Your task to perform on an android device: Go to privacy settings Image 0: 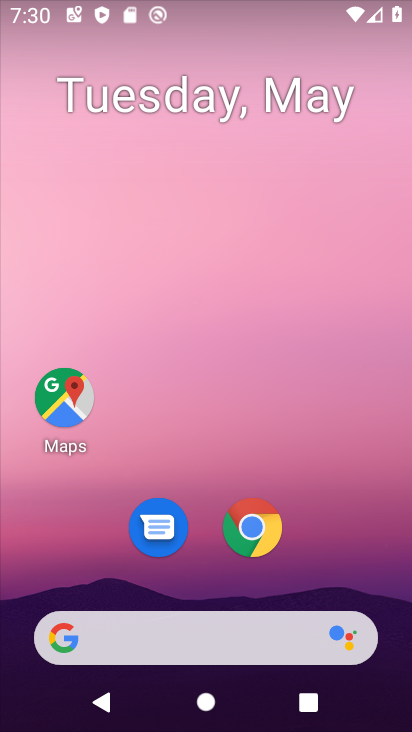
Step 0: drag from (351, 533) to (251, 113)
Your task to perform on an android device: Go to privacy settings Image 1: 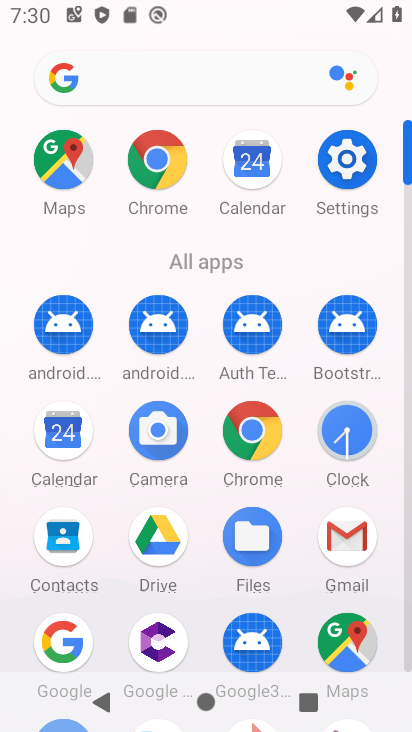
Step 1: click (347, 157)
Your task to perform on an android device: Go to privacy settings Image 2: 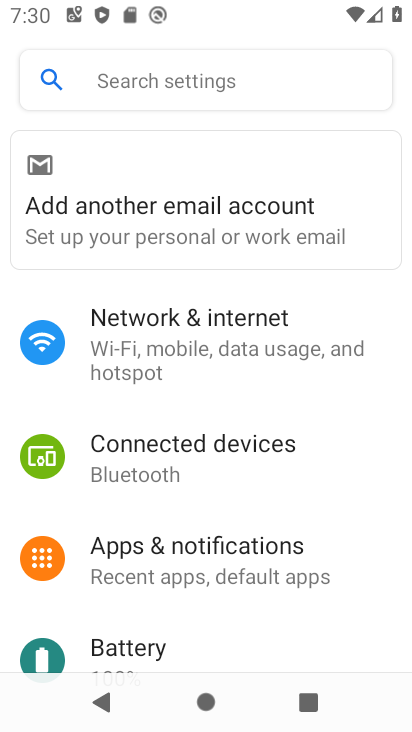
Step 2: drag from (188, 601) to (240, 507)
Your task to perform on an android device: Go to privacy settings Image 3: 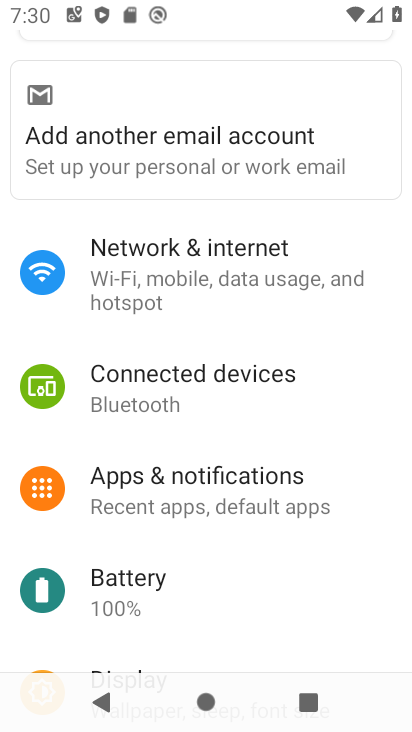
Step 3: drag from (214, 577) to (285, 482)
Your task to perform on an android device: Go to privacy settings Image 4: 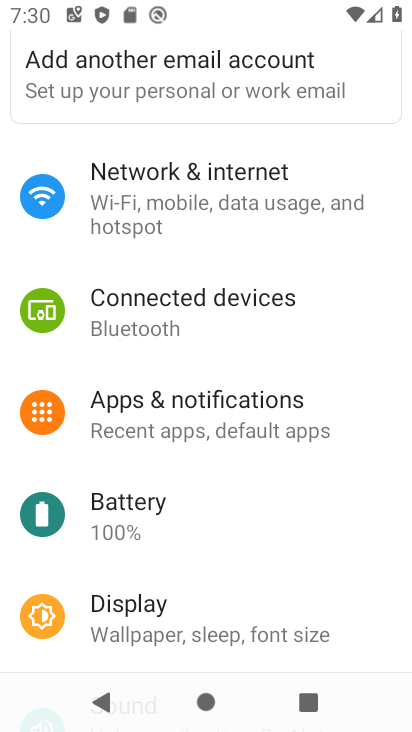
Step 4: drag from (205, 568) to (288, 453)
Your task to perform on an android device: Go to privacy settings Image 5: 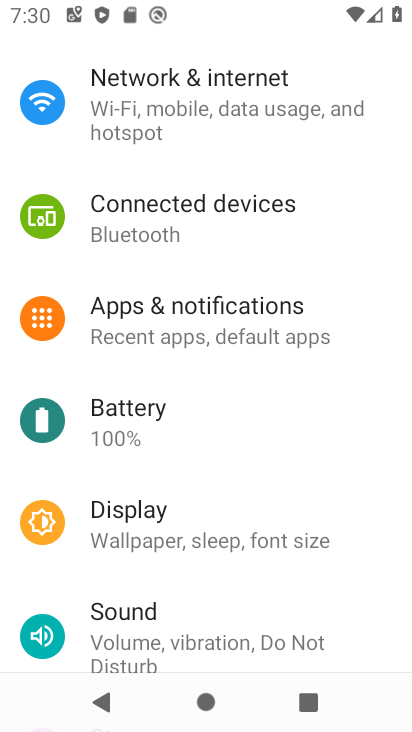
Step 5: drag from (200, 593) to (224, 487)
Your task to perform on an android device: Go to privacy settings Image 6: 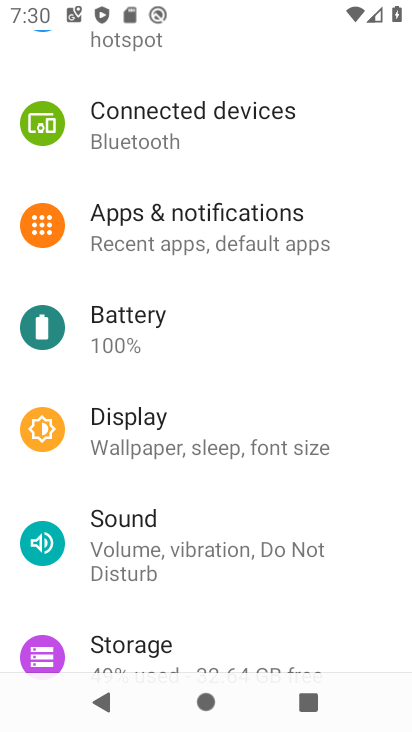
Step 6: drag from (188, 600) to (286, 487)
Your task to perform on an android device: Go to privacy settings Image 7: 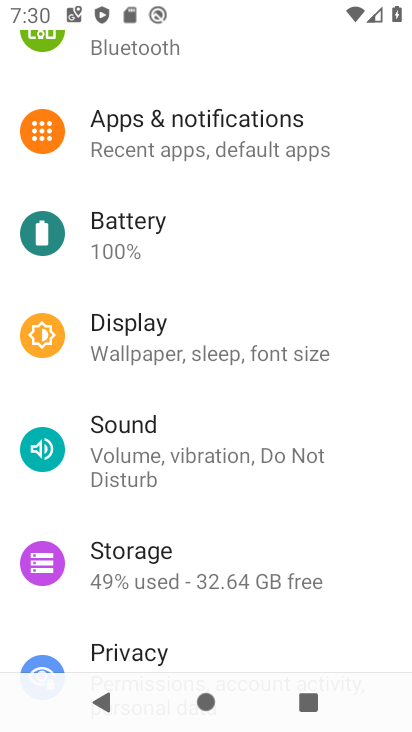
Step 7: drag from (185, 614) to (282, 477)
Your task to perform on an android device: Go to privacy settings Image 8: 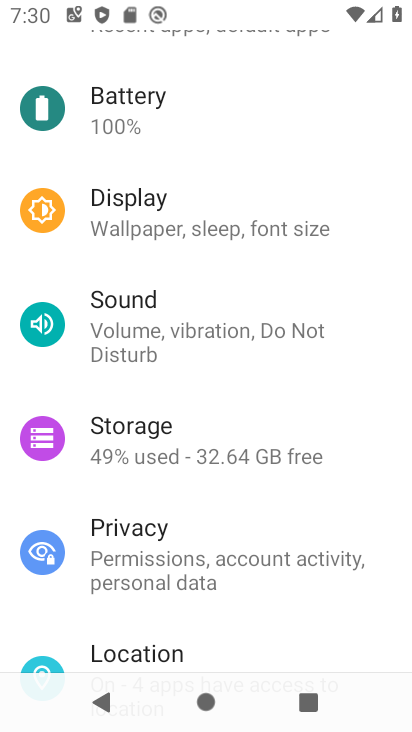
Step 8: click (138, 537)
Your task to perform on an android device: Go to privacy settings Image 9: 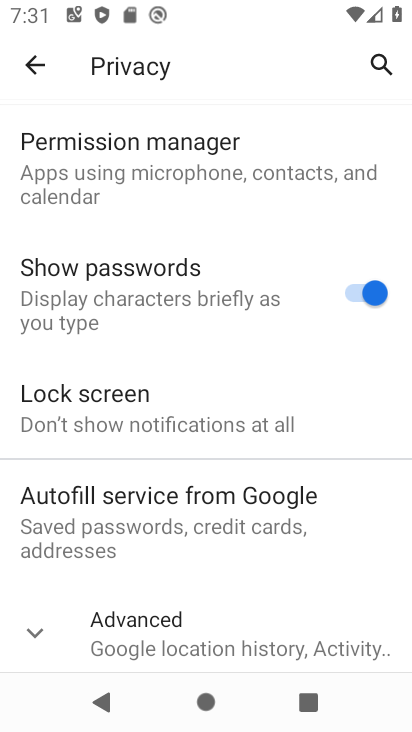
Step 9: task complete